Your task to perform on an android device: turn on improve location accuracy Image 0: 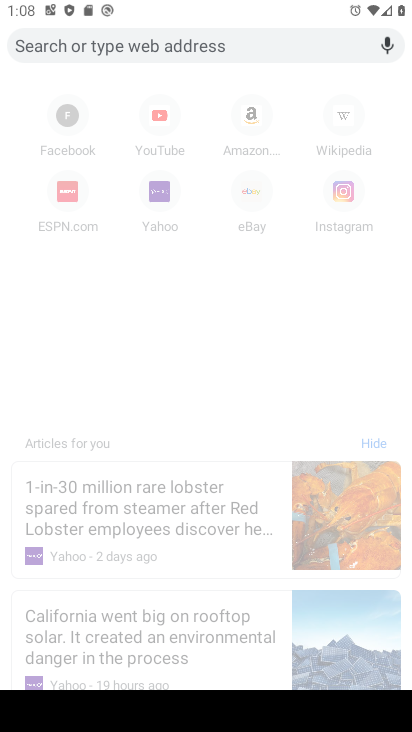
Step 0: press home button
Your task to perform on an android device: turn on improve location accuracy Image 1: 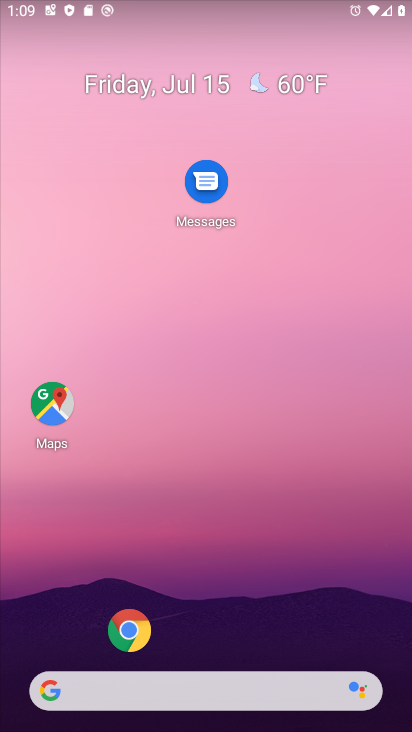
Step 1: drag from (33, 639) to (280, 39)
Your task to perform on an android device: turn on improve location accuracy Image 2: 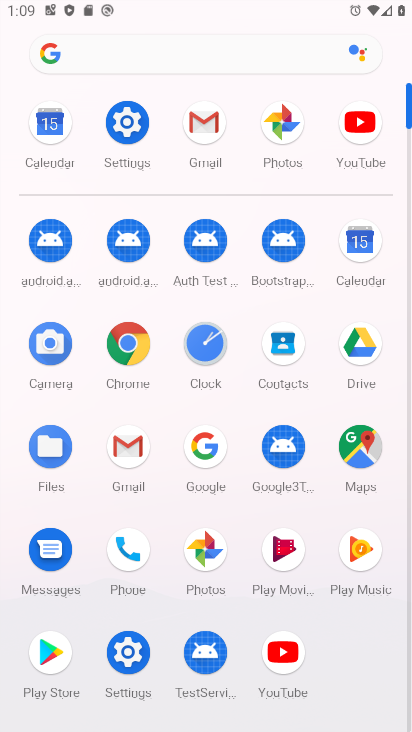
Step 2: click (142, 654)
Your task to perform on an android device: turn on improve location accuracy Image 3: 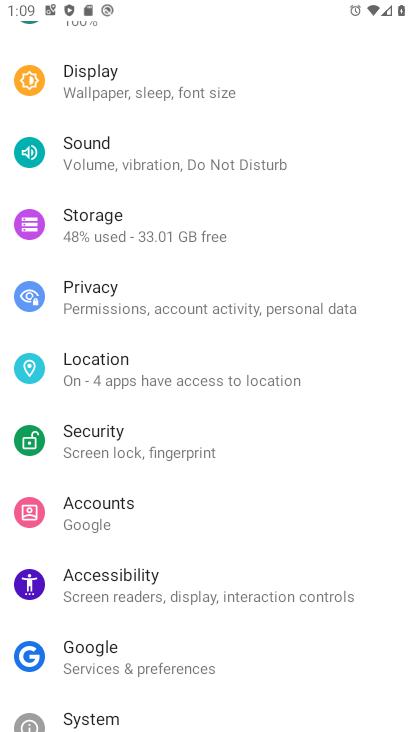
Step 3: click (95, 365)
Your task to perform on an android device: turn on improve location accuracy Image 4: 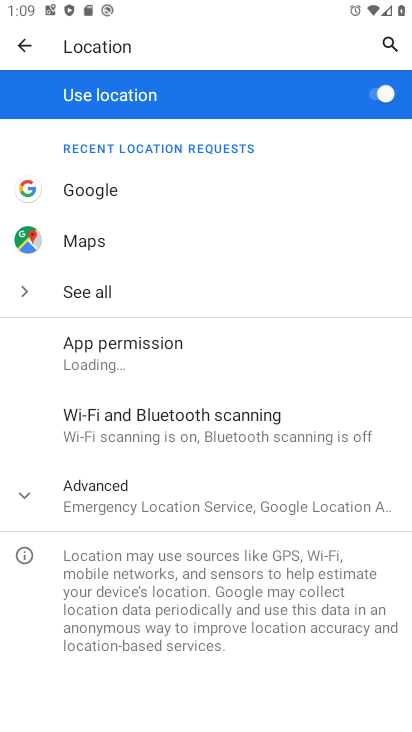
Step 4: click (106, 501)
Your task to perform on an android device: turn on improve location accuracy Image 5: 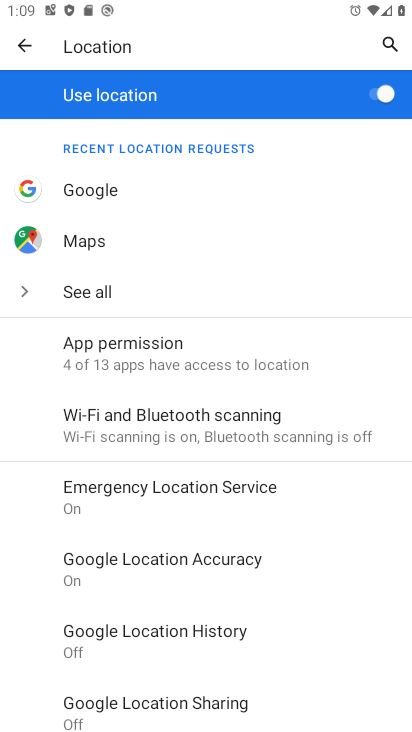
Step 5: task complete